Your task to perform on an android device: check out phone information Image 0: 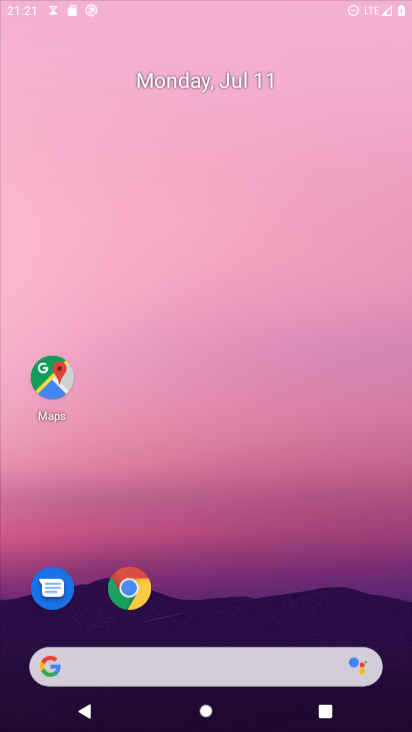
Step 0: press home button
Your task to perform on an android device: check out phone information Image 1: 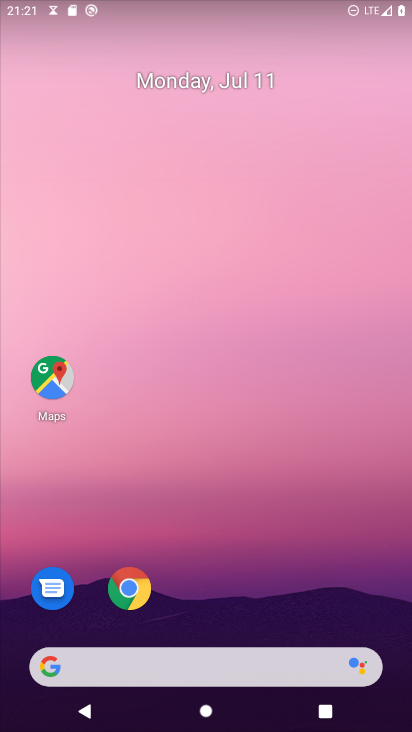
Step 1: drag from (221, 632) to (263, 74)
Your task to perform on an android device: check out phone information Image 2: 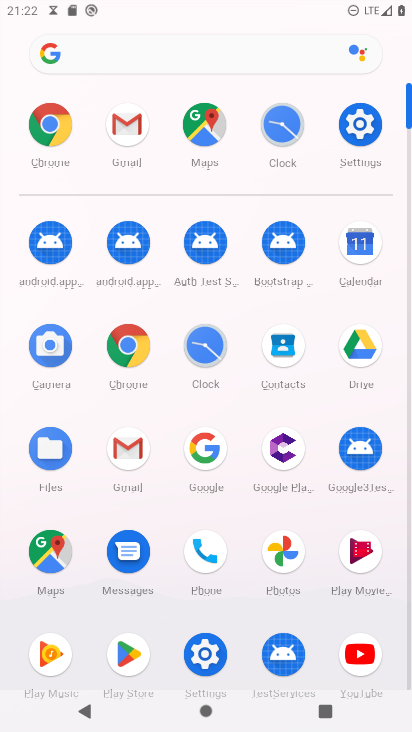
Step 2: click (348, 132)
Your task to perform on an android device: check out phone information Image 3: 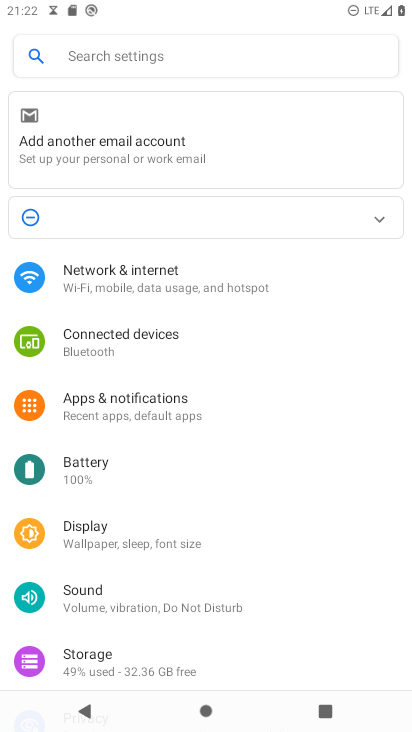
Step 3: drag from (247, 645) to (379, 2)
Your task to perform on an android device: check out phone information Image 4: 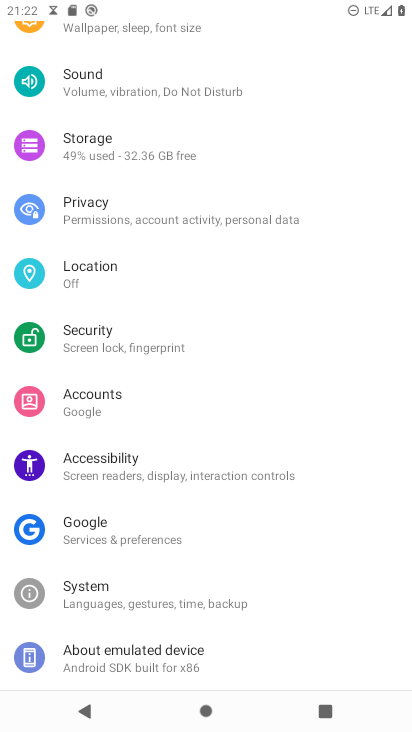
Step 4: click (109, 661)
Your task to perform on an android device: check out phone information Image 5: 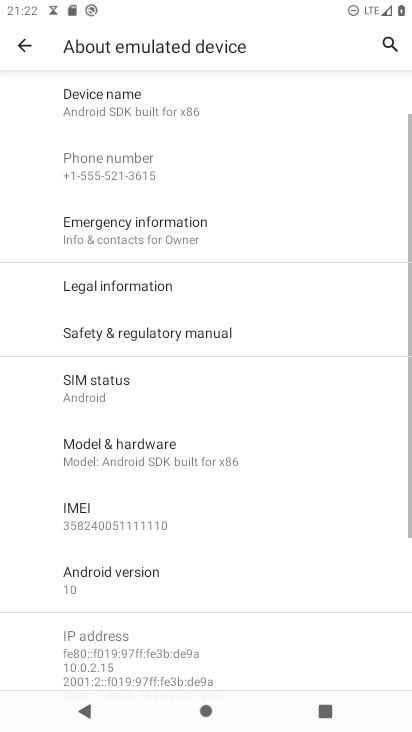
Step 5: task complete